Your task to perform on an android device: Open accessibility settings Image 0: 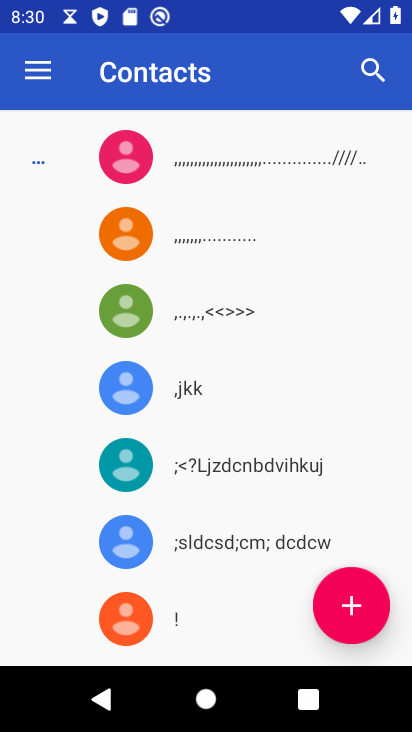
Step 0: press back button
Your task to perform on an android device: Open accessibility settings Image 1: 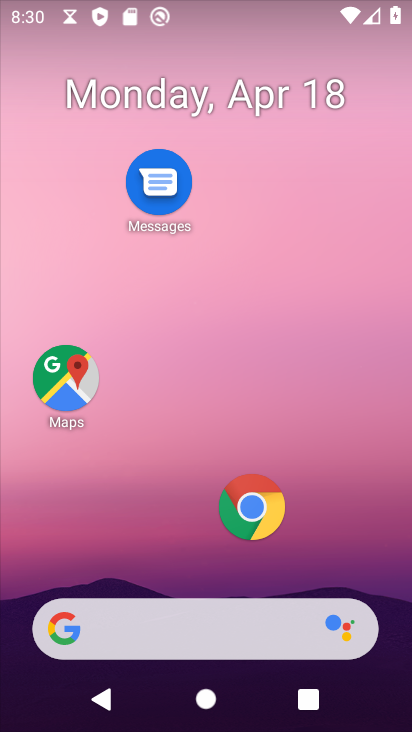
Step 1: drag from (187, 574) to (205, 355)
Your task to perform on an android device: Open accessibility settings Image 2: 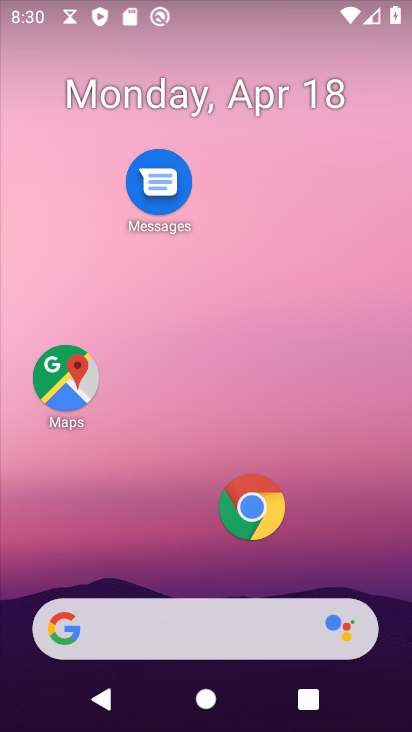
Step 2: drag from (196, 373) to (215, 169)
Your task to perform on an android device: Open accessibility settings Image 3: 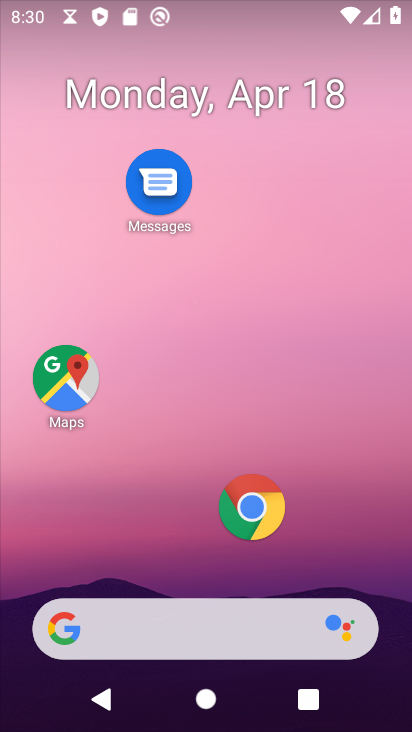
Step 3: drag from (222, 595) to (255, 116)
Your task to perform on an android device: Open accessibility settings Image 4: 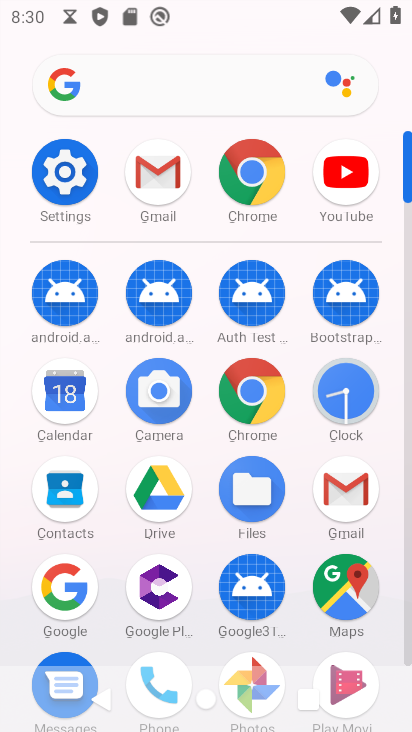
Step 4: click (59, 174)
Your task to perform on an android device: Open accessibility settings Image 5: 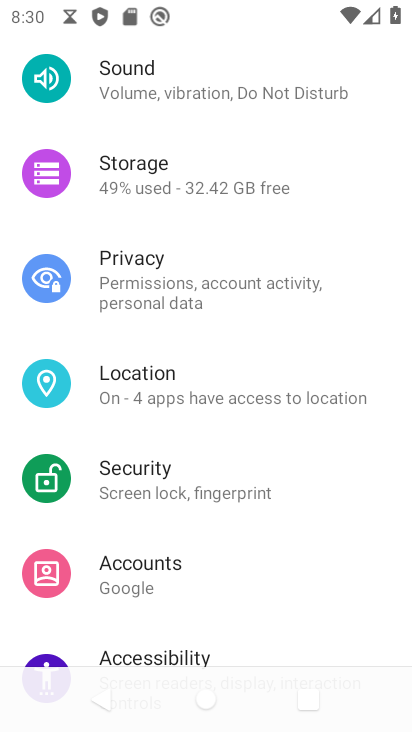
Step 5: click (158, 662)
Your task to perform on an android device: Open accessibility settings Image 6: 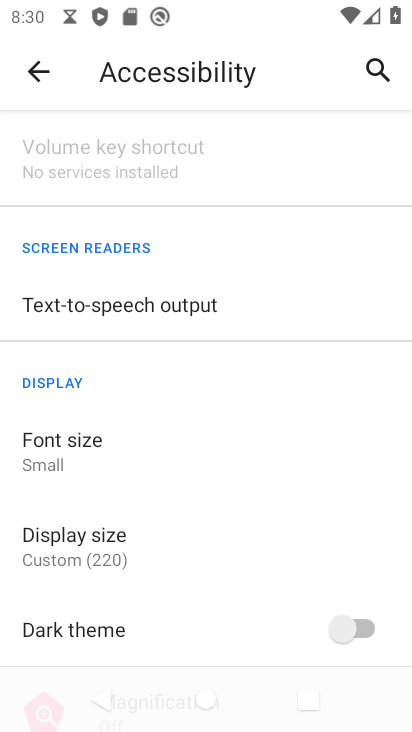
Step 6: task complete